Your task to perform on an android device: Show me the alarms in the clock app Image 0: 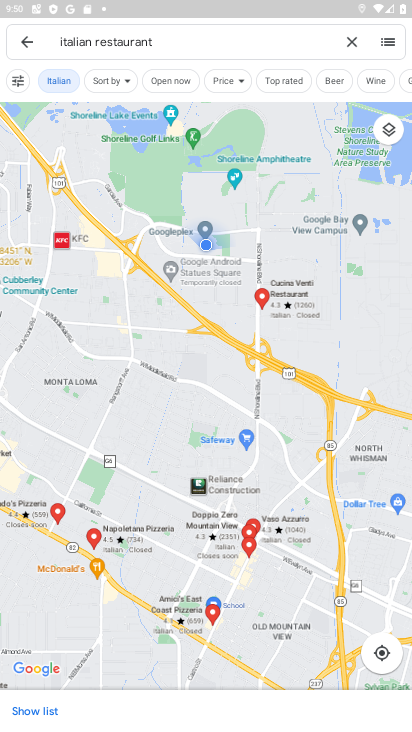
Step 0: press home button
Your task to perform on an android device: Show me the alarms in the clock app Image 1: 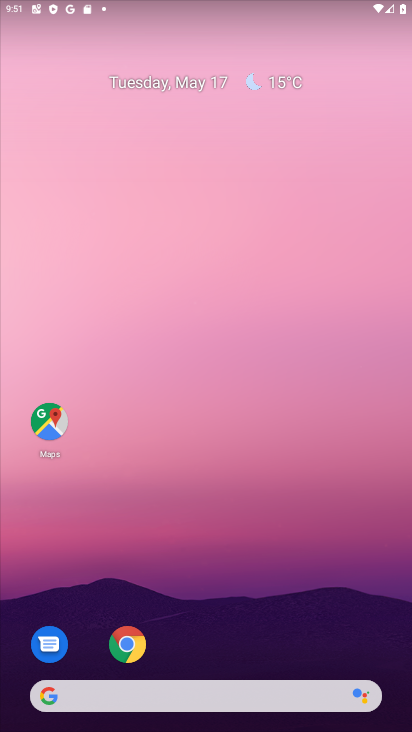
Step 1: drag from (204, 667) to (178, 299)
Your task to perform on an android device: Show me the alarms in the clock app Image 2: 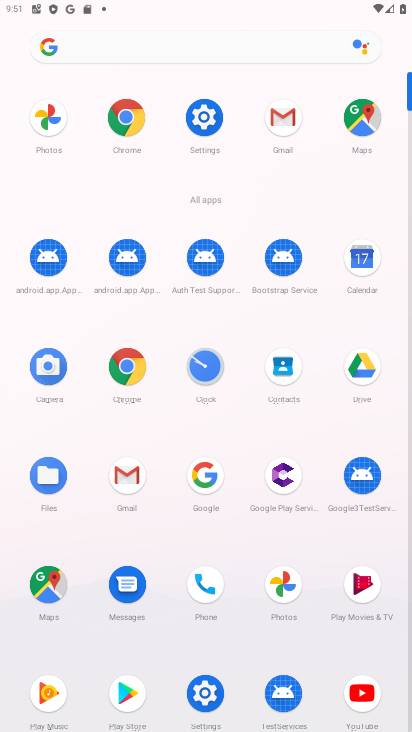
Step 2: click (205, 368)
Your task to perform on an android device: Show me the alarms in the clock app Image 3: 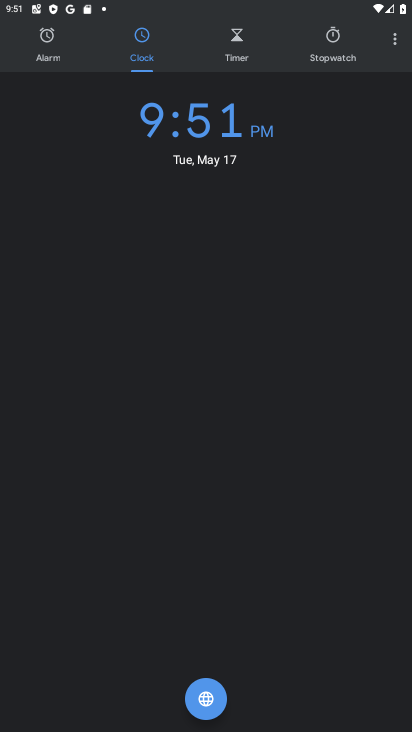
Step 3: click (60, 32)
Your task to perform on an android device: Show me the alarms in the clock app Image 4: 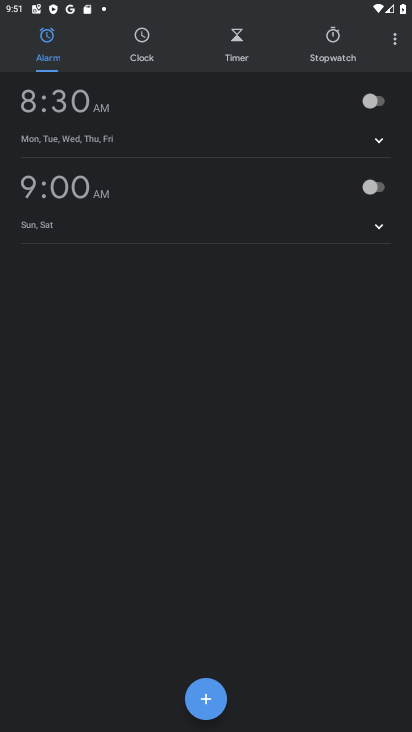
Step 4: task complete